Your task to perform on an android device: change timer sound Image 0: 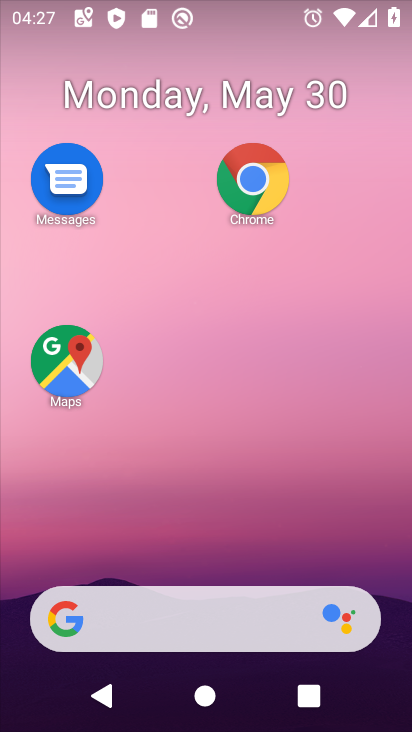
Step 0: drag from (228, 532) to (18, 26)
Your task to perform on an android device: change timer sound Image 1: 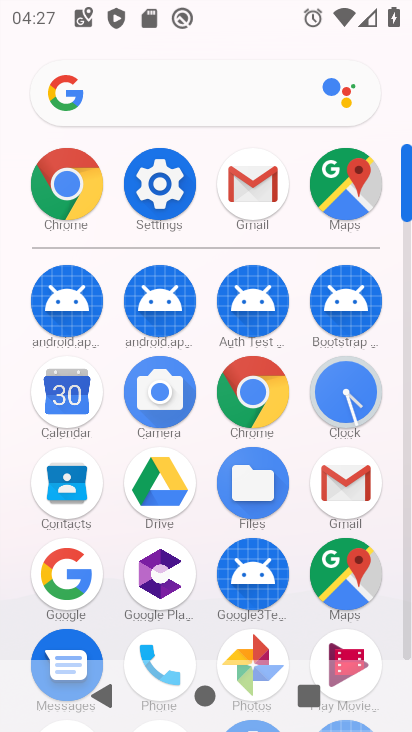
Step 1: click (160, 230)
Your task to perform on an android device: change timer sound Image 2: 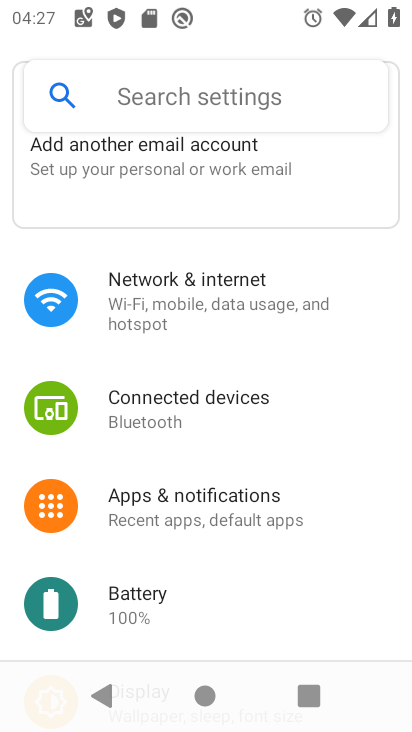
Step 2: drag from (188, 506) to (182, 192)
Your task to perform on an android device: change timer sound Image 3: 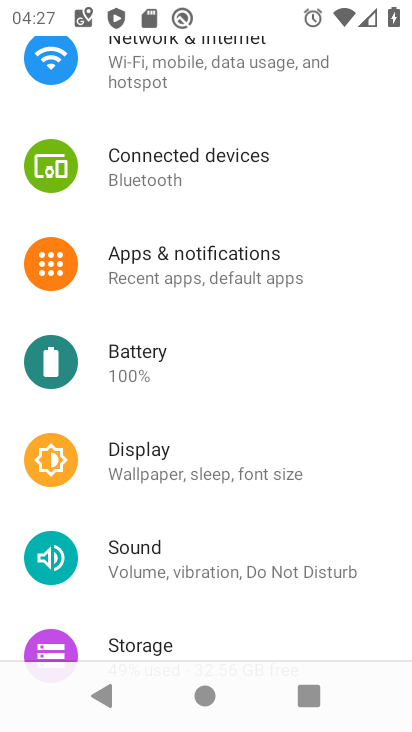
Step 3: press home button
Your task to perform on an android device: change timer sound Image 4: 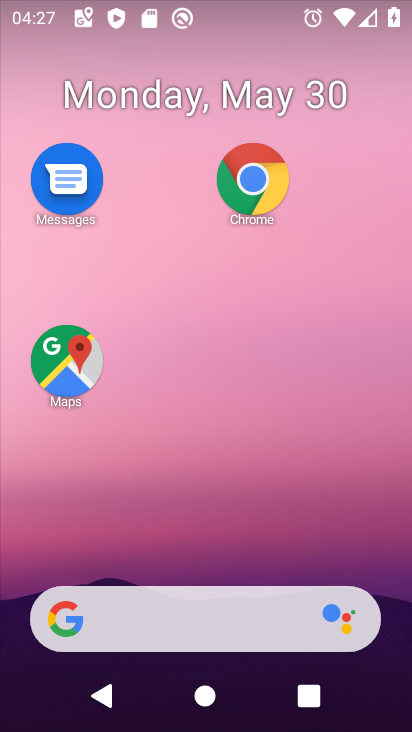
Step 4: drag from (204, 529) to (196, 5)
Your task to perform on an android device: change timer sound Image 5: 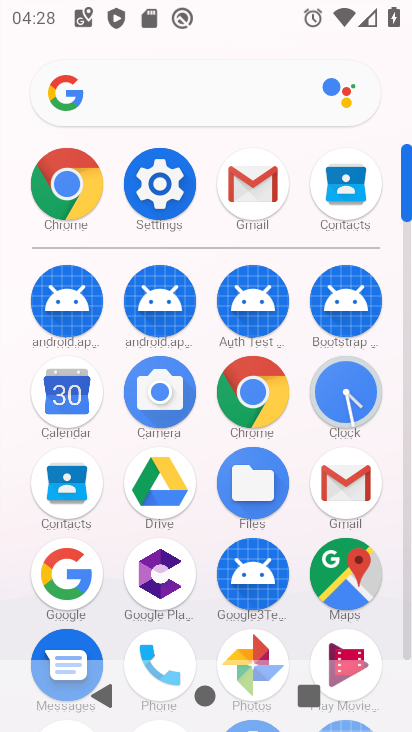
Step 5: click (332, 425)
Your task to perform on an android device: change timer sound Image 6: 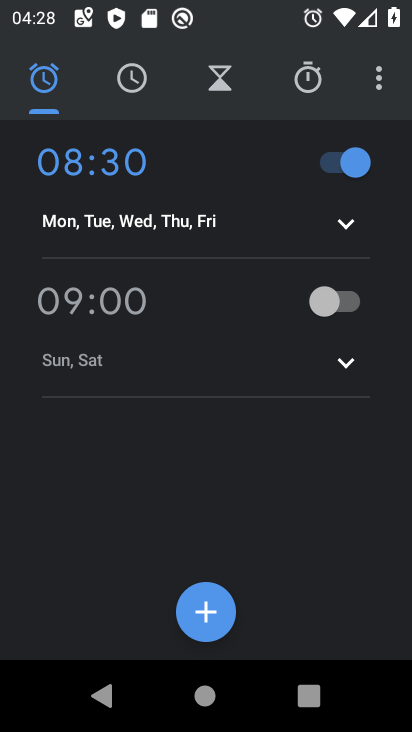
Step 6: click (375, 87)
Your task to perform on an android device: change timer sound Image 7: 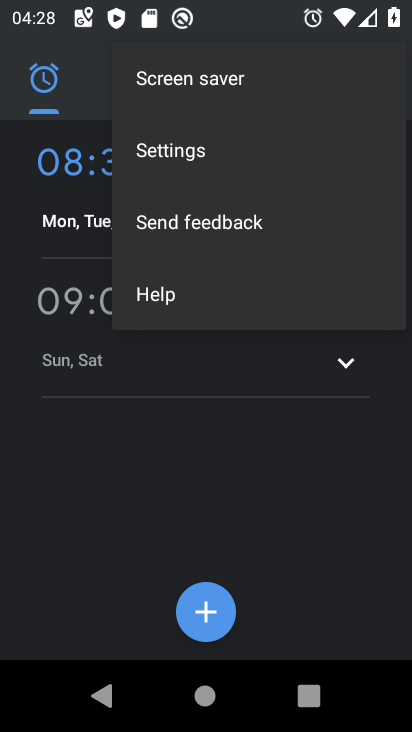
Step 7: click (235, 159)
Your task to perform on an android device: change timer sound Image 8: 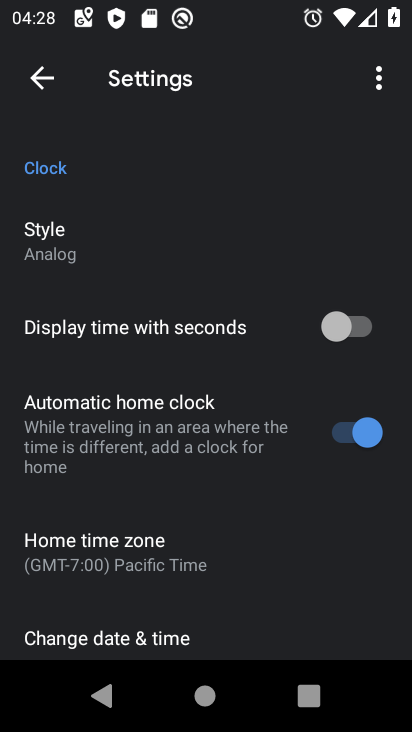
Step 8: drag from (180, 554) to (187, 170)
Your task to perform on an android device: change timer sound Image 9: 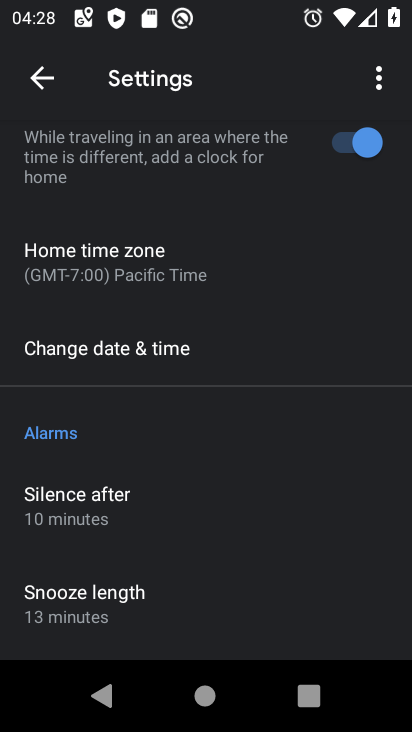
Step 9: drag from (165, 595) to (167, 143)
Your task to perform on an android device: change timer sound Image 10: 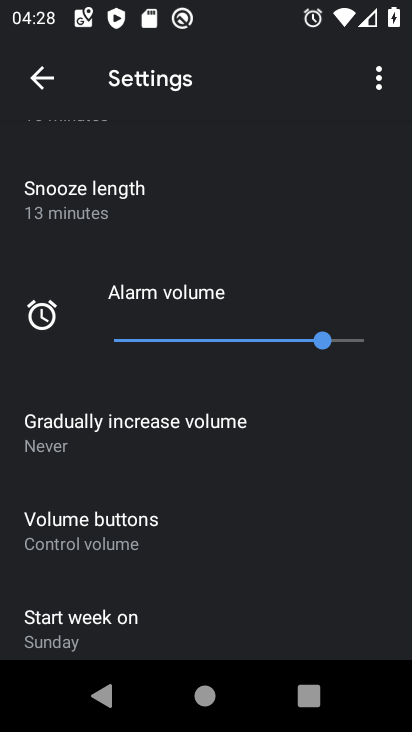
Step 10: drag from (205, 573) to (205, 133)
Your task to perform on an android device: change timer sound Image 11: 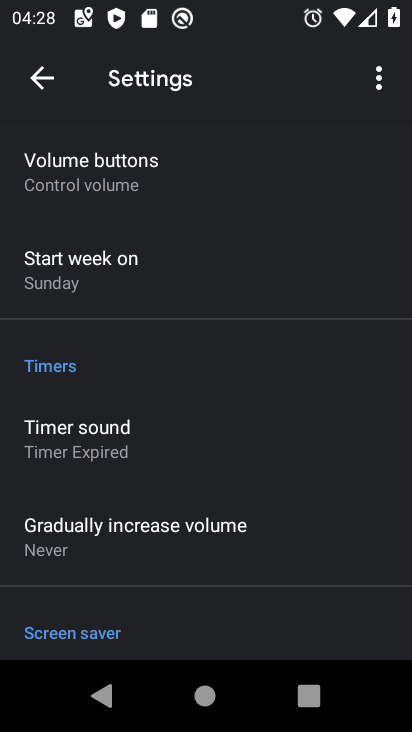
Step 11: click (92, 441)
Your task to perform on an android device: change timer sound Image 12: 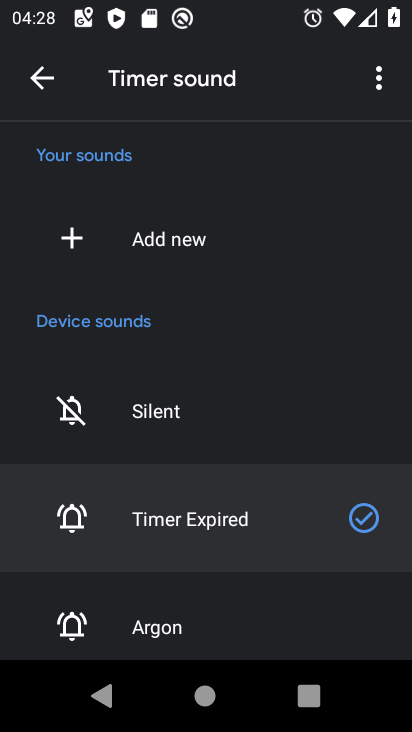
Step 12: click (116, 626)
Your task to perform on an android device: change timer sound Image 13: 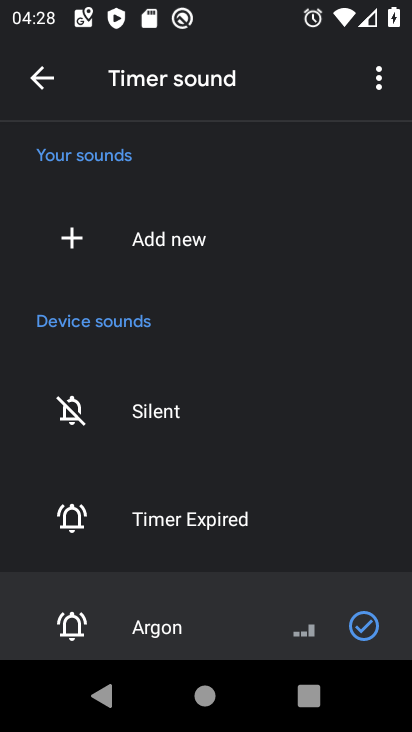
Step 13: task complete